Your task to perform on an android device: turn off sleep mode Image 0: 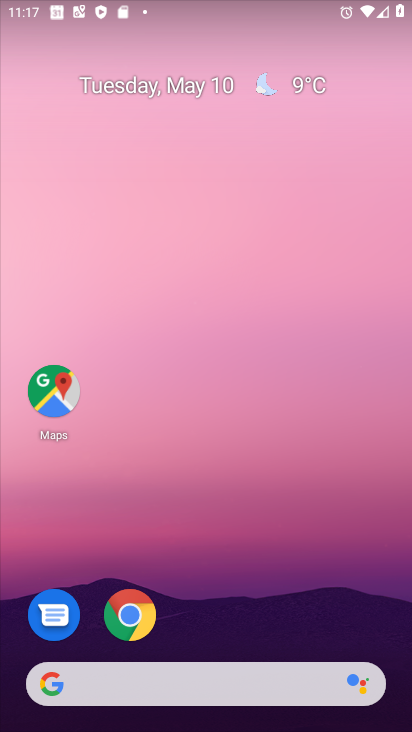
Step 0: drag from (215, 635) to (306, 112)
Your task to perform on an android device: turn off sleep mode Image 1: 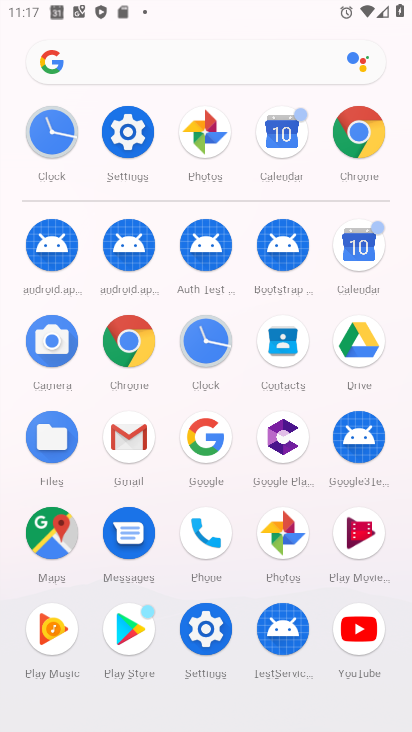
Step 1: click (127, 126)
Your task to perform on an android device: turn off sleep mode Image 2: 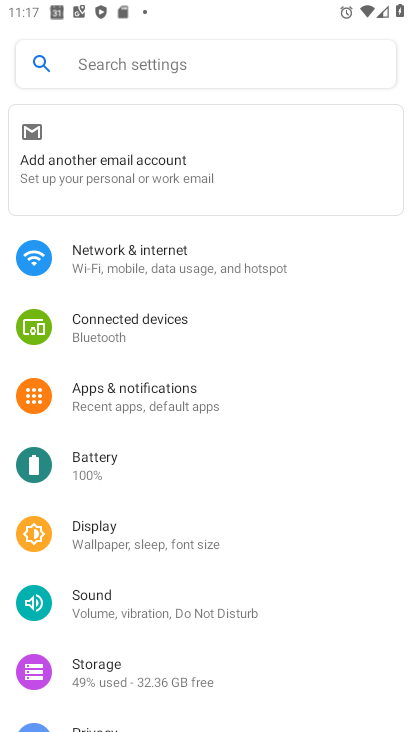
Step 2: drag from (161, 678) to (168, 489)
Your task to perform on an android device: turn off sleep mode Image 3: 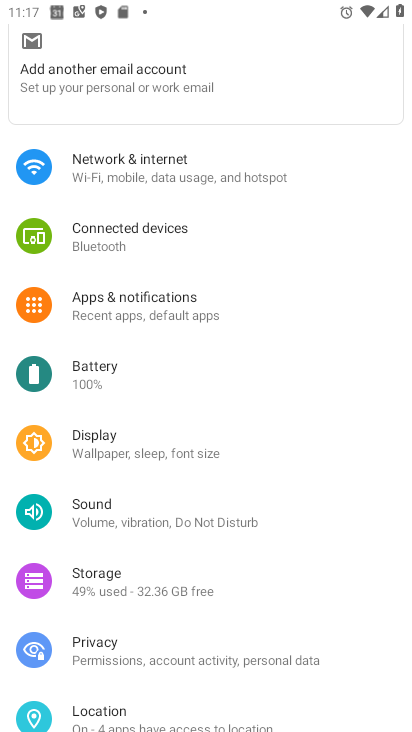
Step 3: drag from (169, 311) to (172, 178)
Your task to perform on an android device: turn off sleep mode Image 4: 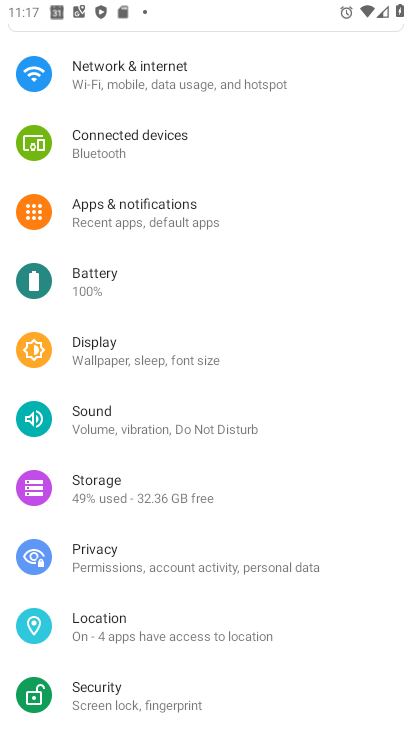
Step 4: click (108, 339)
Your task to perform on an android device: turn off sleep mode Image 5: 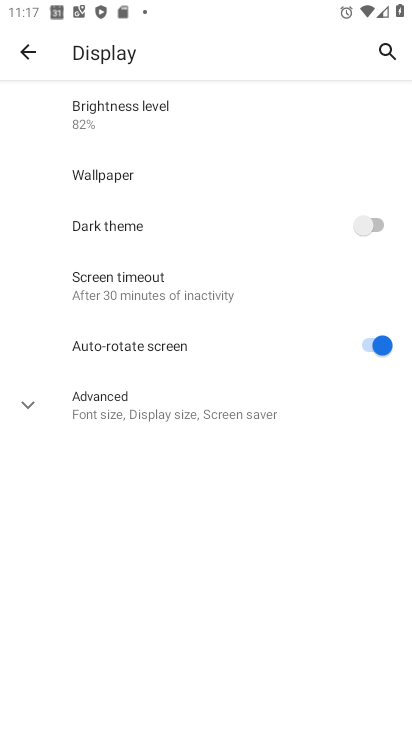
Step 5: task complete